Your task to perform on an android device: turn off airplane mode Image 0: 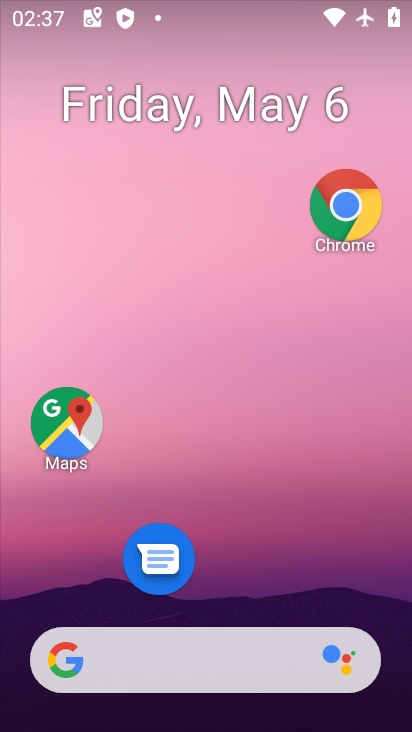
Step 0: drag from (162, 682) to (316, 58)
Your task to perform on an android device: turn off airplane mode Image 1: 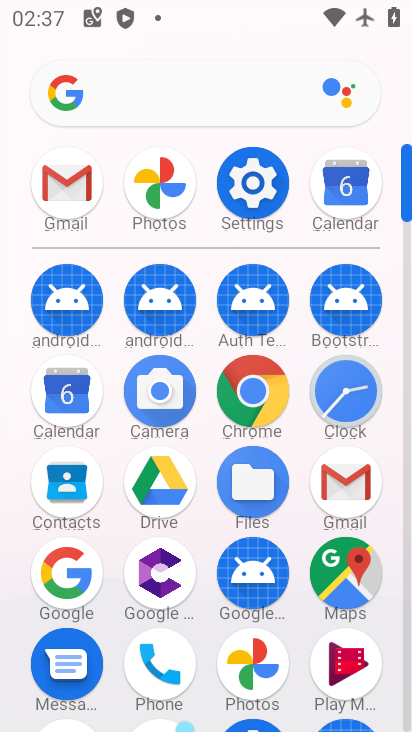
Step 1: click (256, 196)
Your task to perform on an android device: turn off airplane mode Image 2: 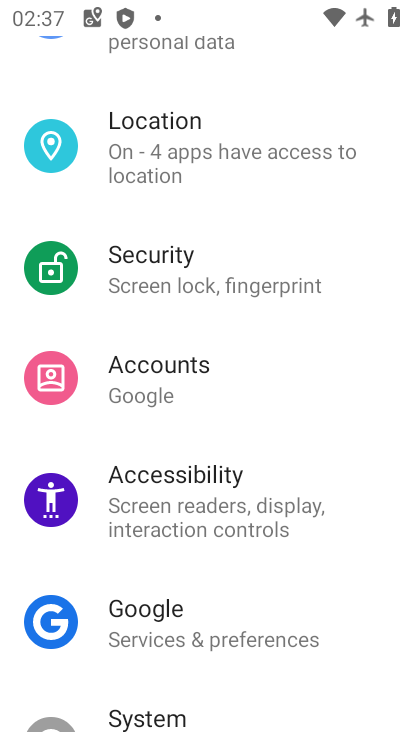
Step 2: drag from (302, 97) to (220, 636)
Your task to perform on an android device: turn off airplane mode Image 3: 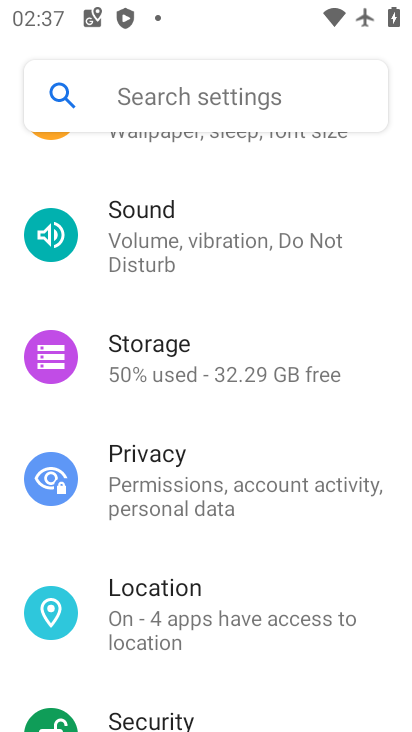
Step 3: drag from (256, 199) to (212, 599)
Your task to perform on an android device: turn off airplane mode Image 4: 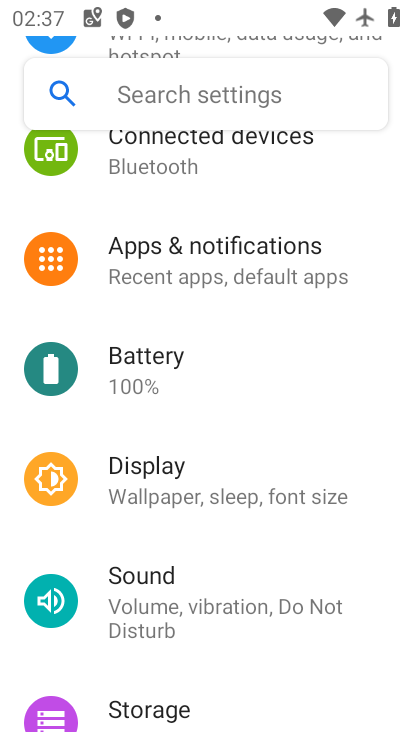
Step 4: drag from (284, 197) to (240, 678)
Your task to perform on an android device: turn off airplane mode Image 5: 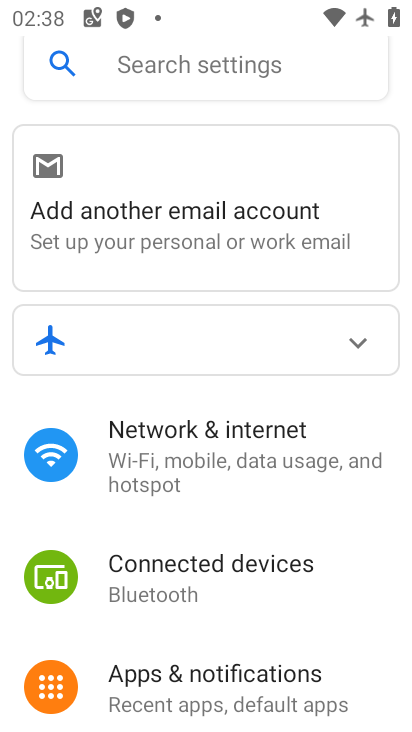
Step 5: click (234, 439)
Your task to perform on an android device: turn off airplane mode Image 6: 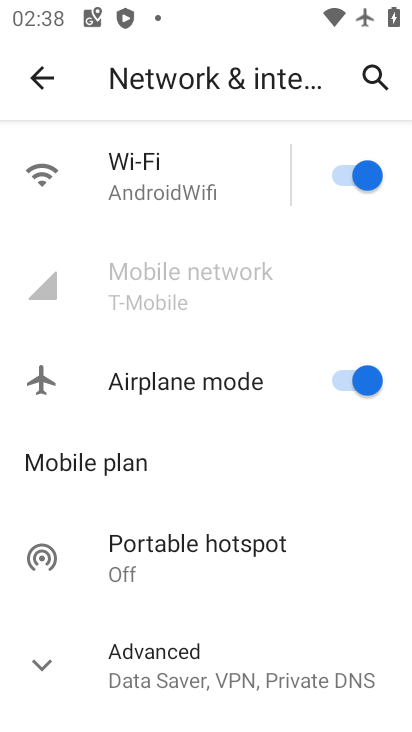
Step 6: click (339, 380)
Your task to perform on an android device: turn off airplane mode Image 7: 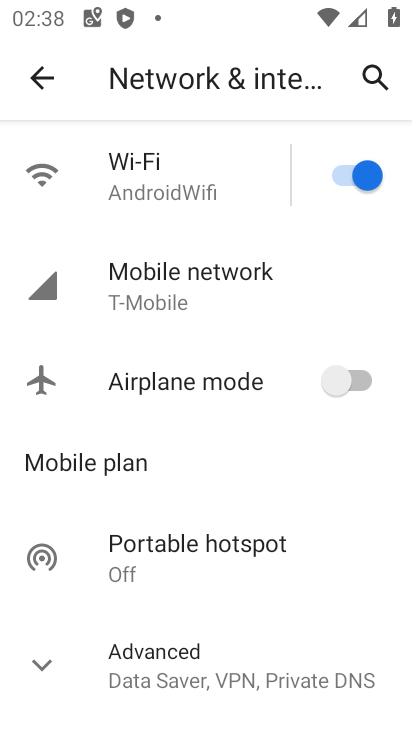
Step 7: task complete